Your task to perform on an android device: Open Google Chrome and click the shortcut for Amazon.com Image 0: 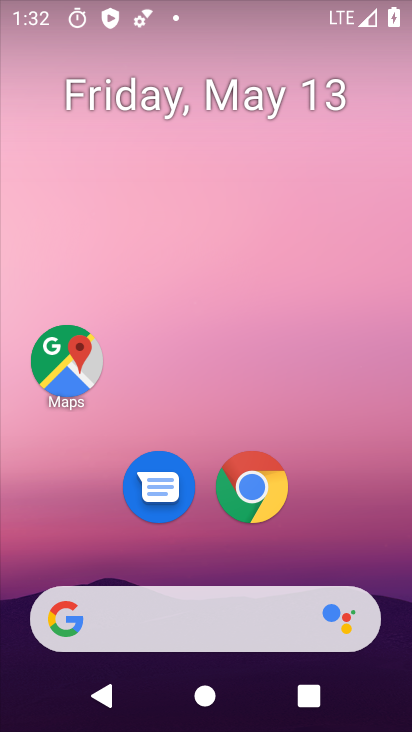
Step 0: drag from (328, 522) to (335, 170)
Your task to perform on an android device: Open Google Chrome and click the shortcut for Amazon.com Image 1: 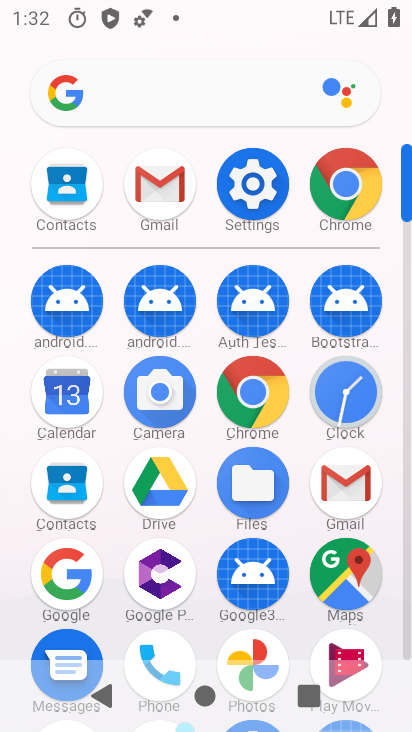
Step 1: click (258, 396)
Your task to perform on an android device: Open Google Chrome and click the shortcut for Amazon.com Image 2: 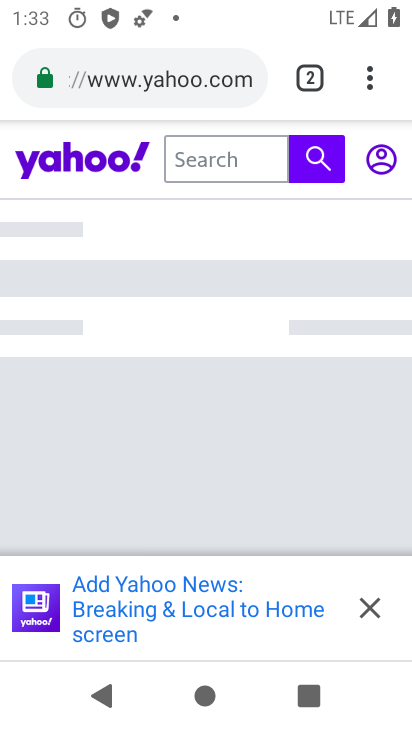
Step 2: click (315, 72)
Your task to perform on an android device: Open Google Chrome and click the shortcut for Amazon.com Image 3: 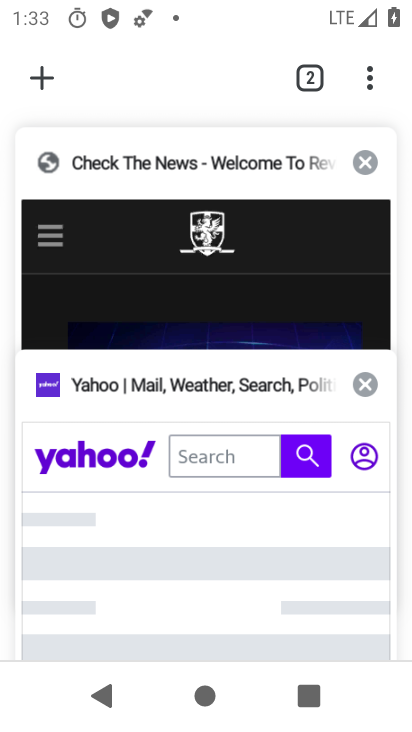
Step 3: click (32, 76)
Your task to perform on an android device: Open Google Chrome and click the shortcut for Amazon.com Image 4: 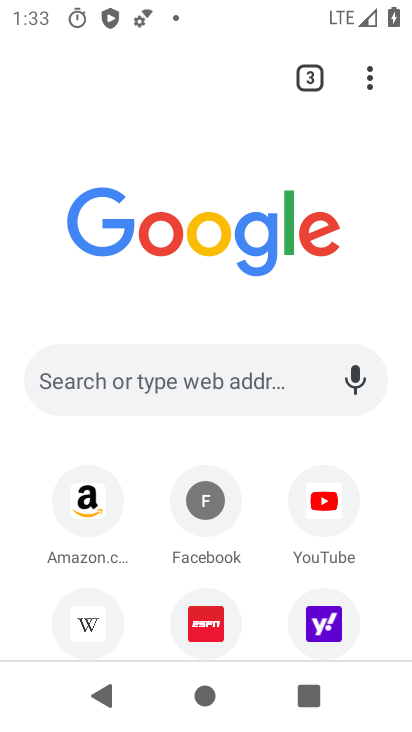
Step 4: click (117, 516)
Your task to perform on an android device: Open Google Chrome and click the shortcut for Amazon.com Image 5: 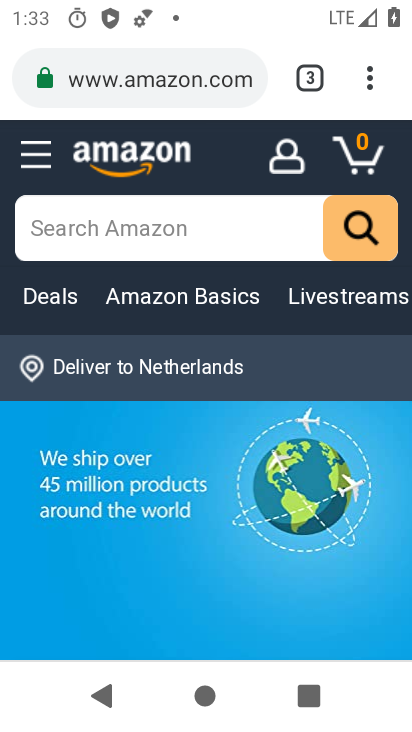
Step 5: task complete